Your task to perform on an android device: Open the map Image 0: 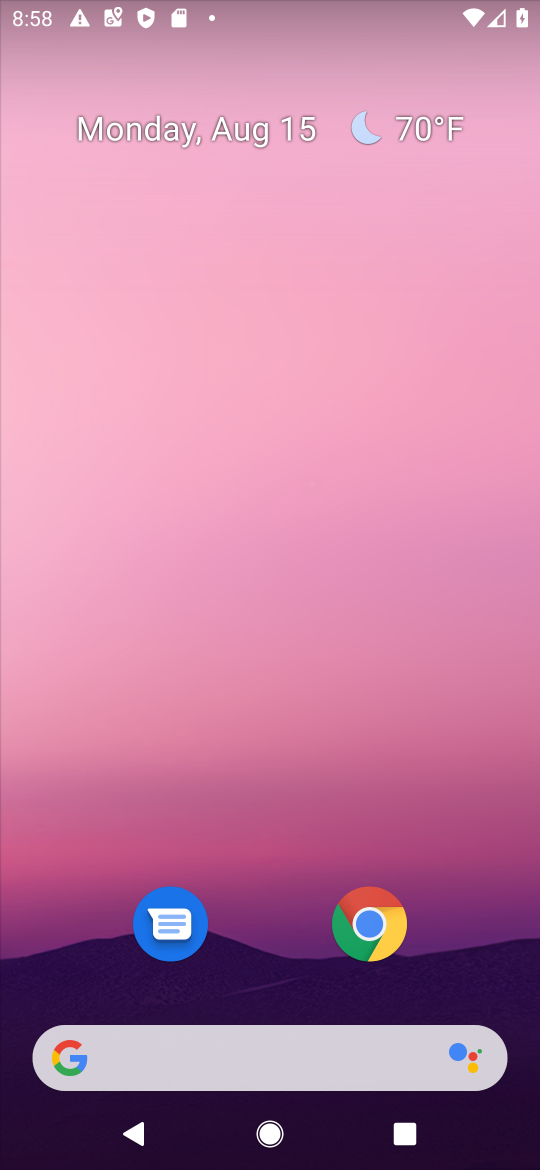
Step 0: drag from (506, 984) to (418, 199)
Your task to perform on an android device: Open the map Image 1: 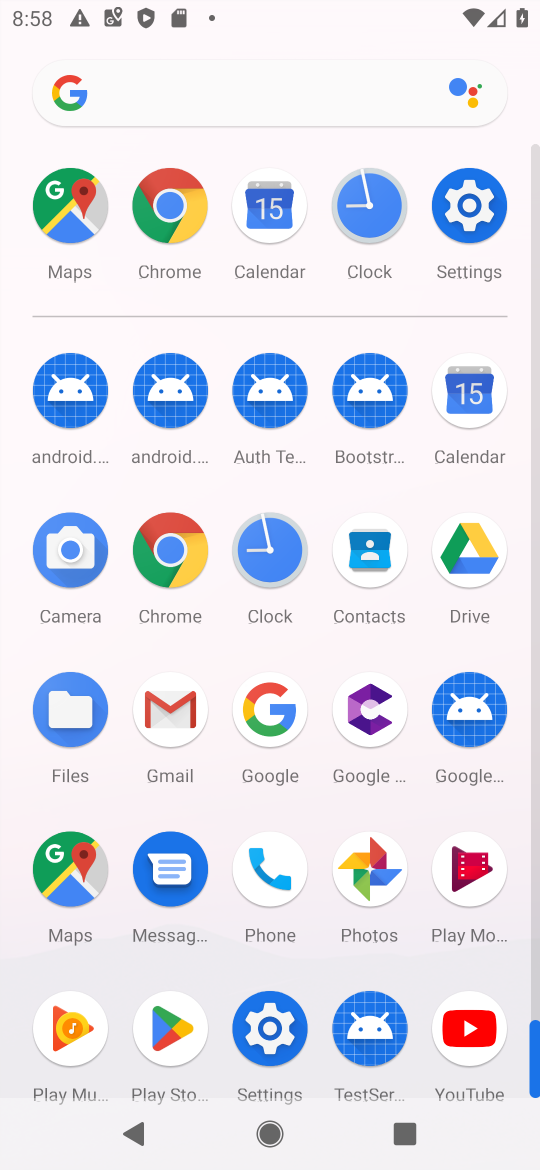
Step 1: click (69, 875)
Your task to perform on an android device: Open the map Image 2: 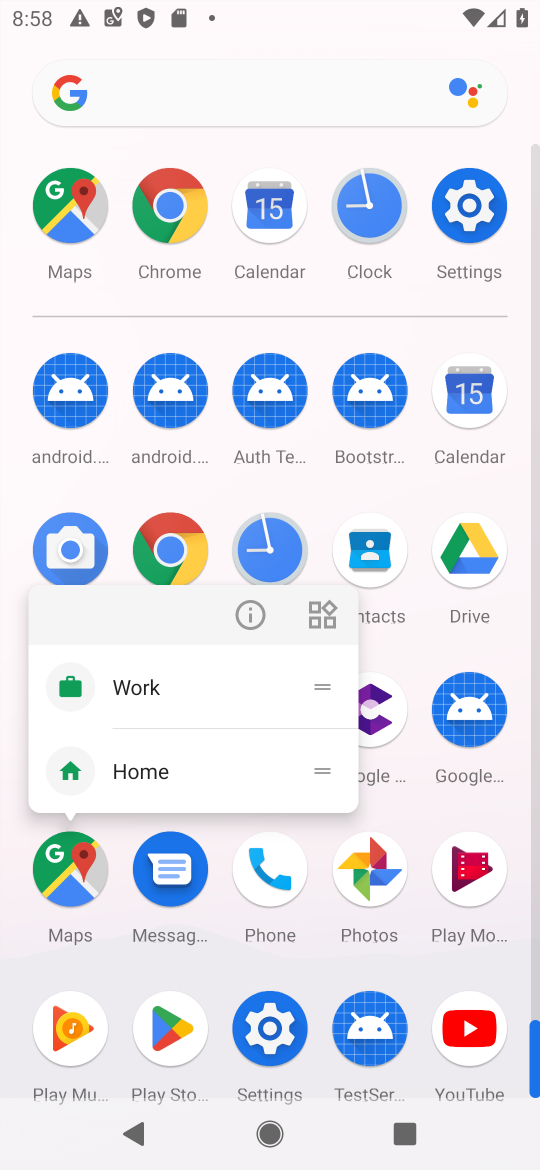
Step 2: click (73, 872)
Your task to perform on an android device: Open the map Image 3: 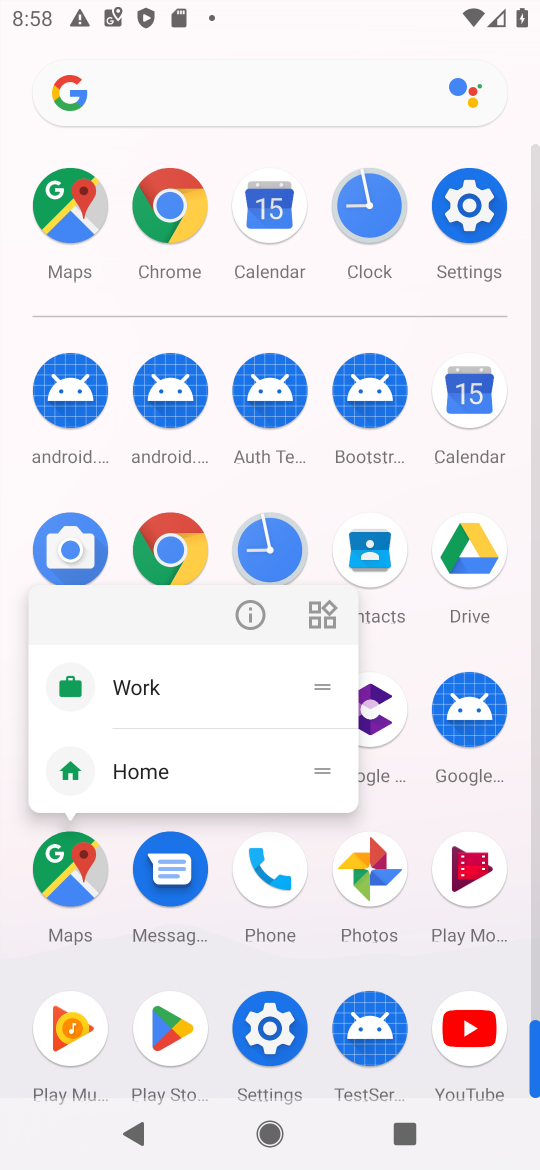
Step 3: click (73, 872)
Your task to perform on an android device: Open the map Image 4: 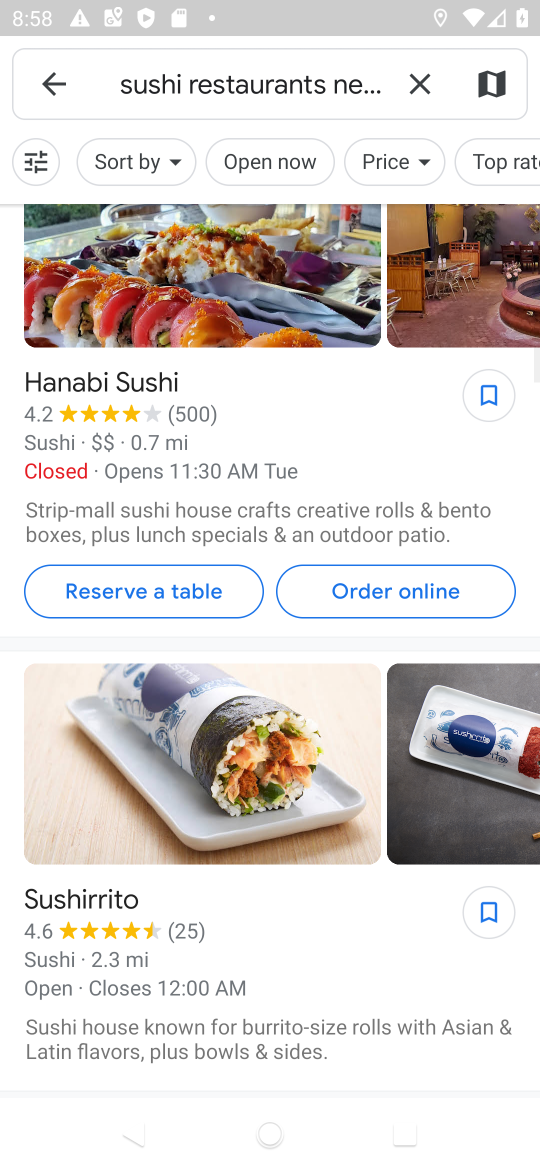
Step 4: click (421, 82)
Your task to perform on an android device: Open the map Image 5: 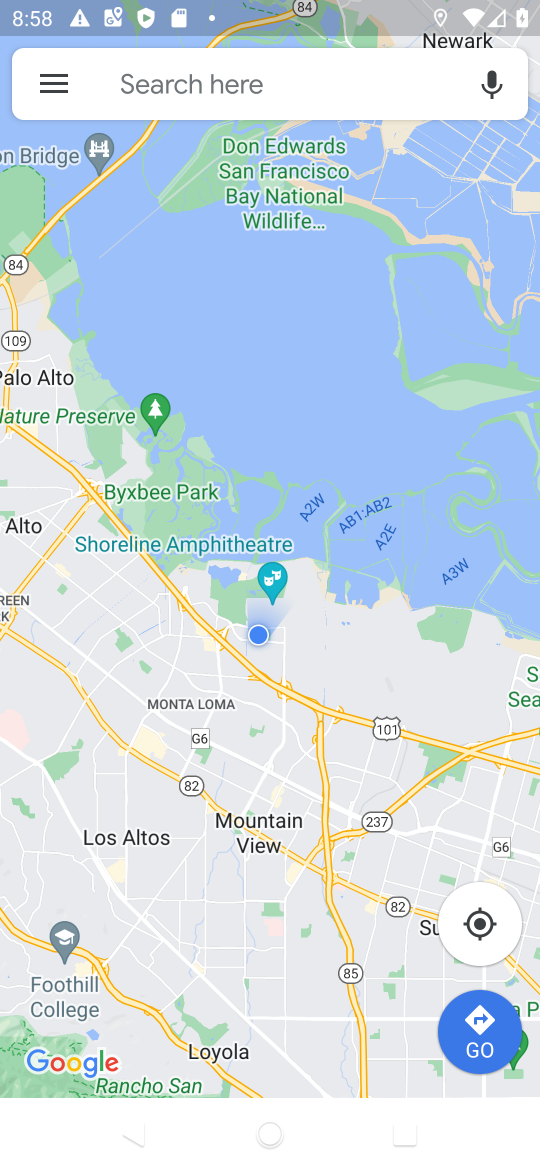
Step 5: task complete